Your task to perform on an android device: What's the weather today? Image 0: 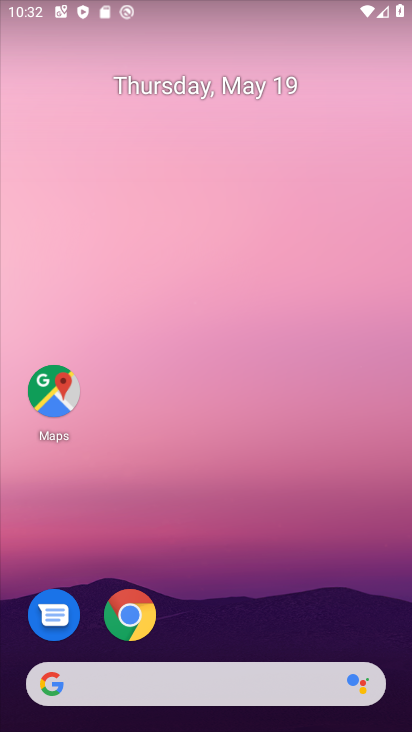
Step 0: click (124, 693)
Your task to perform on an android device: What's the weather today? Image 1: 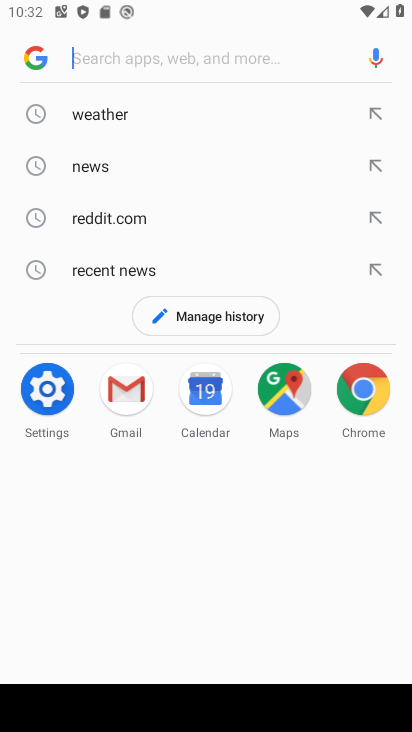
Step 1: click (98, 111)
Your task to perform on an android device: What's the weather today? Image 2: 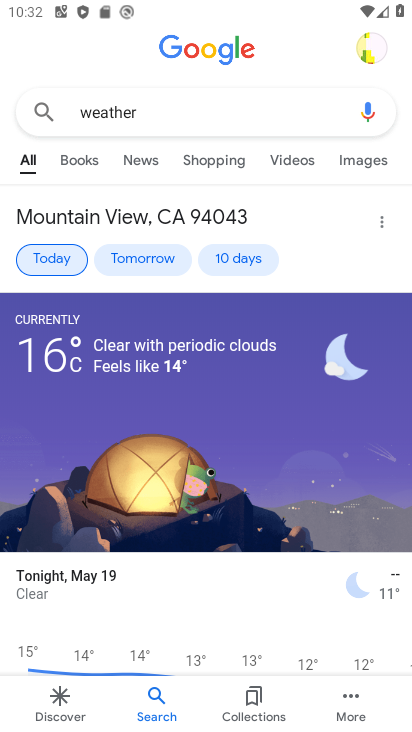
Step 2: task complete